Your task to perform on an android device: clear history in the chrome app Image 0: 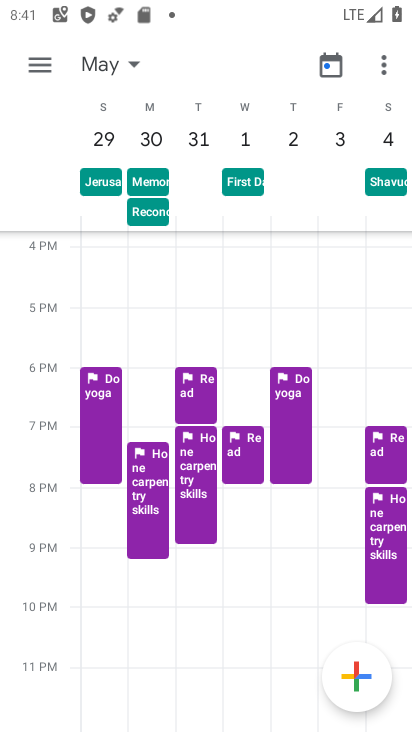
Step 0: press back button
Your task to perform on an android device: clear history in the chrome app Image 1: 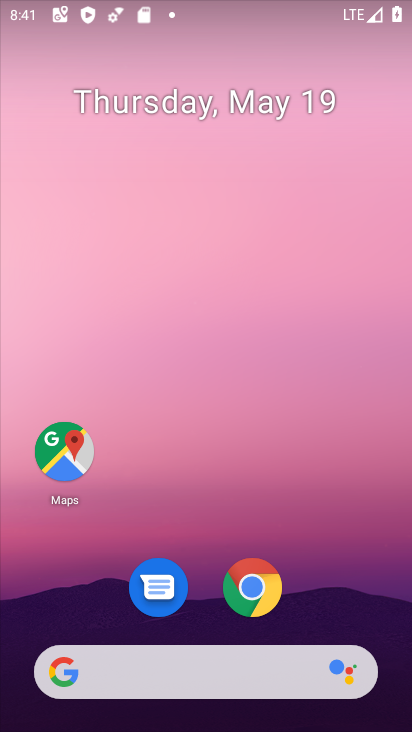
Step 1: drag from (307, 574) to (273, 1)
Your task to perform on an android device: clear history in the chrome app Image 2: 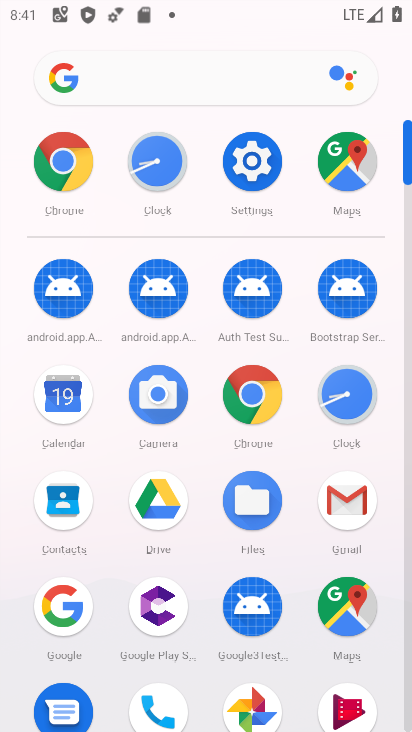
Step 2: click (251, 396)
Your task to perform on an android device: clear history in the chrome app Image 3: 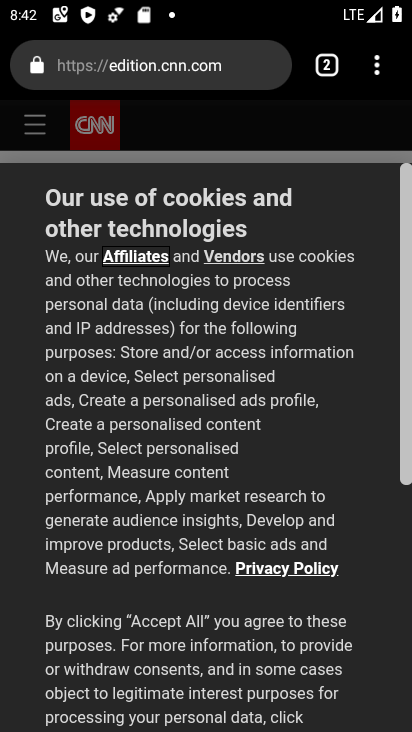
Step 3: drag from (372, 72) to (150, 360)
Your task to perform on an android device: clear history in the chrome app Image 4: 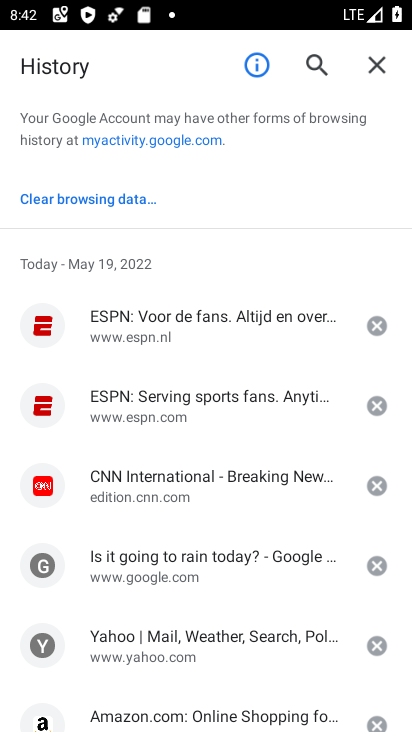
Step 4: click (81, 211)
Your task to perform on an android device: clear history in the chrome app Image 5: 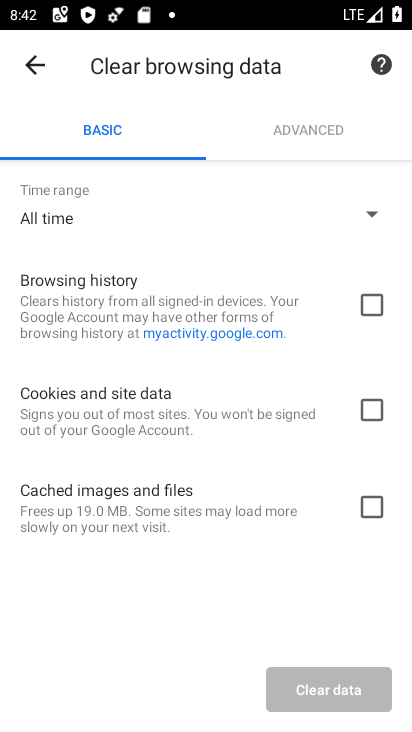
Step 5: click (363, 305)
Your task to perform on an android device: clear history in the chrome app Image 6: 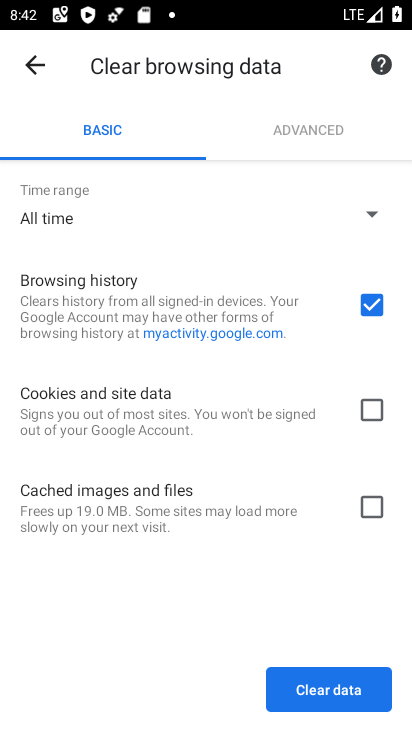
Step 6: click (336, 688)
Your task to perform on an android device: clear history in the chrome app Image 7: 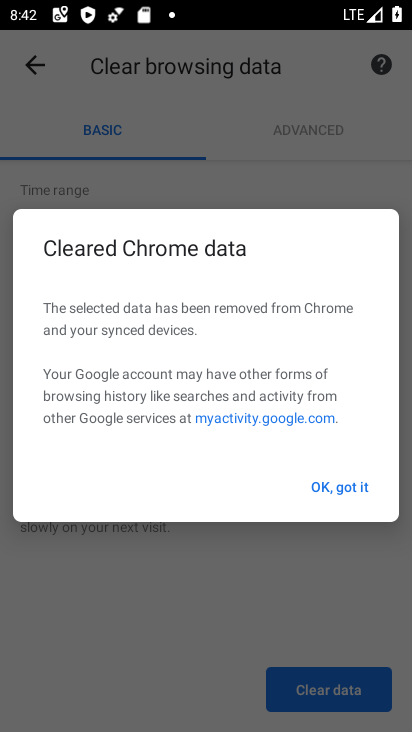
Step 7: click (338, 479)
Your task to perform on an android device: clear history in the chrome app Image 8: 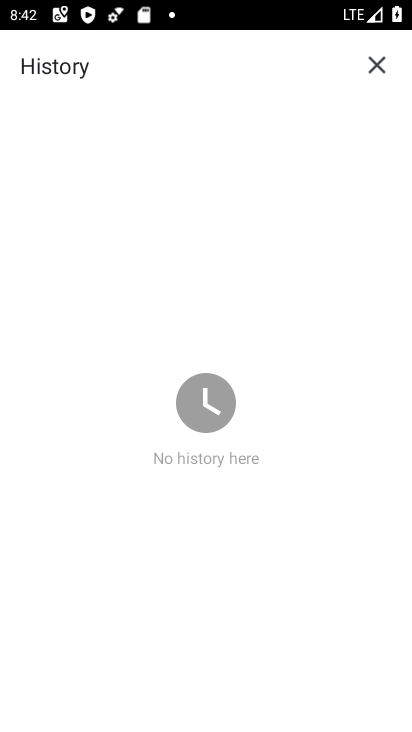
Step 8: task complete